Your task to perform on an android device: turn on sleep mode Image 0: 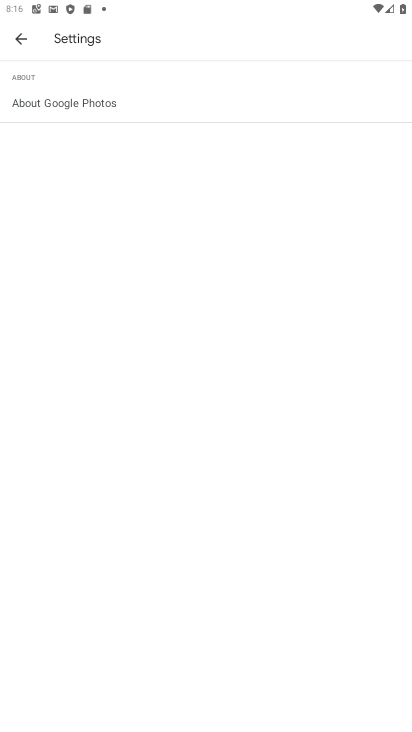
Step 0: press home button
Your task to perform on an android device: turn on sleep mode Image 1: 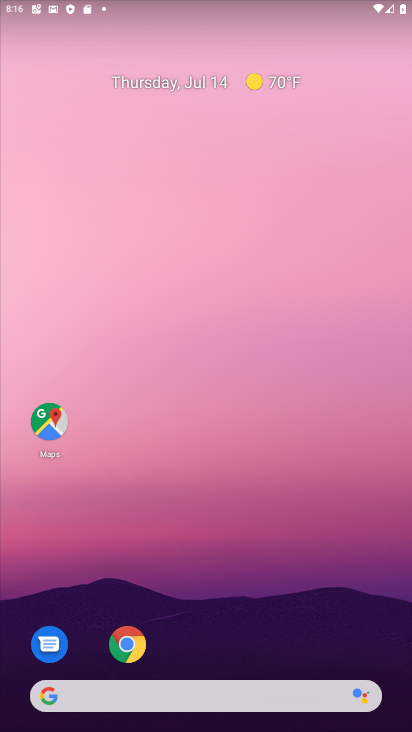
Step 1: drag from (231, 617) to (253, 169)
Your task to perform on an android device: turn on sleep mode Image 2: 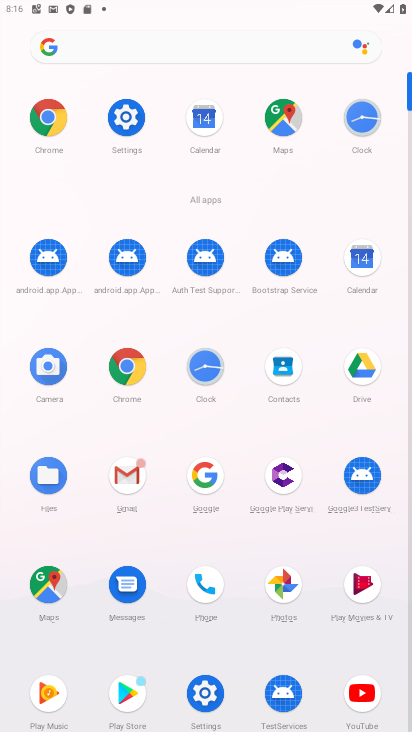
Step 2: click (130, 107)
Your task to perform on an android device: turn on sleep mode Image 3: 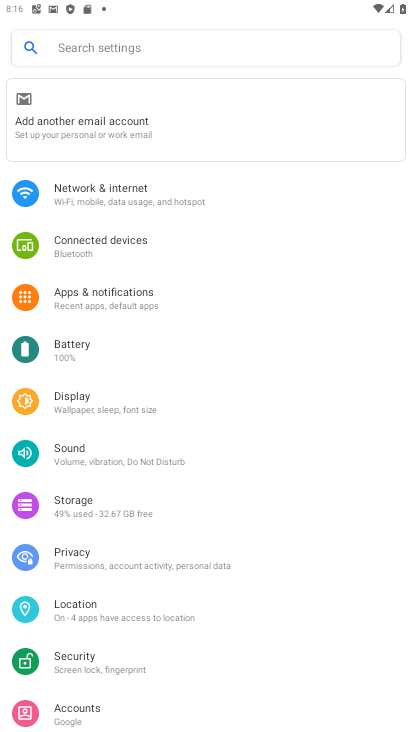
Step 3: task complete